Your task to perform on an android device: change notifications settings Image 0: 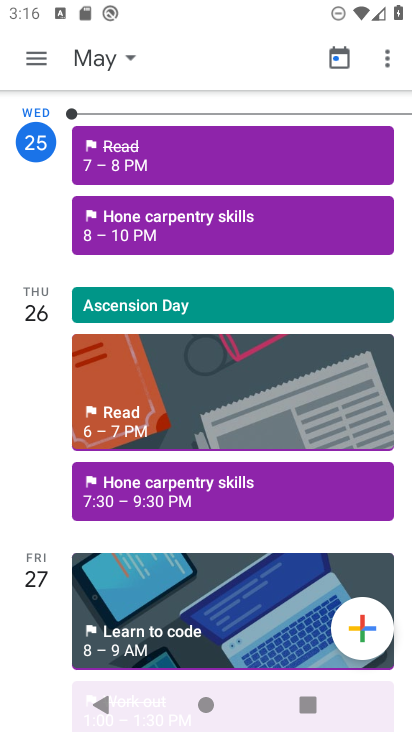
Step 0: press home button
Your task to perform on an android device: change notifications settings Image 1: 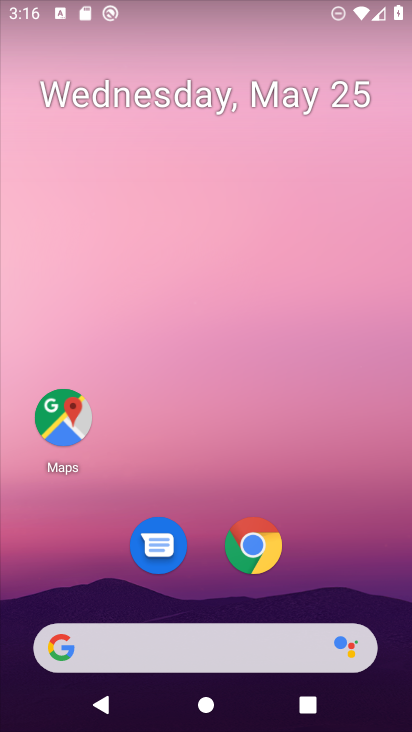
Step 1: drag from (352, 551) to (298, 116)
Your task to perform on an android device: change notifications settings Image 2: 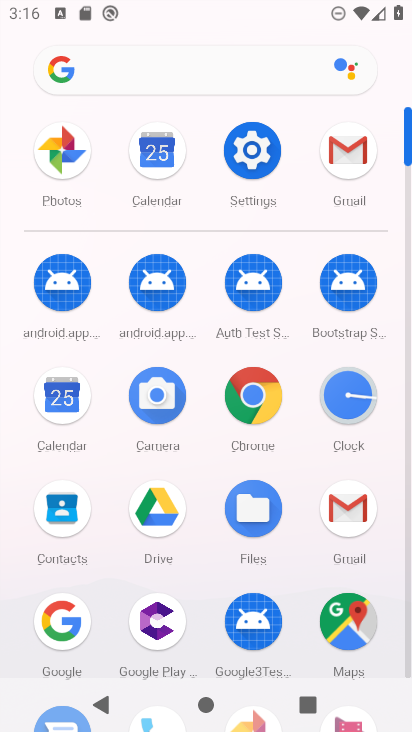
Step 2: click (242, 182)
Your task to perform on an android device: change notifications settings Image 3: 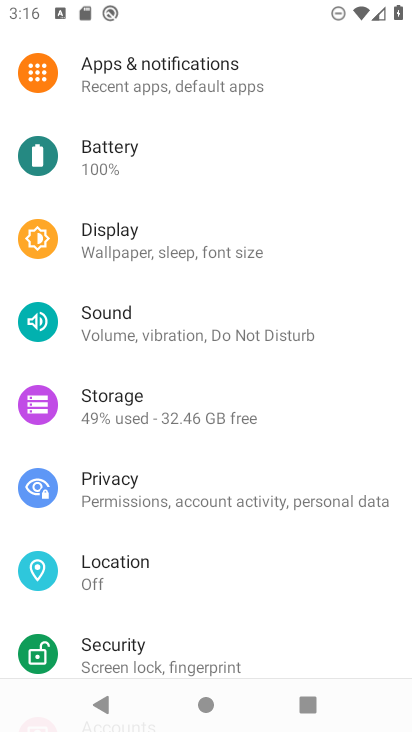
Step 3: click (207, 113)
Your task to perform on an android device: change notifications settings Image 4: 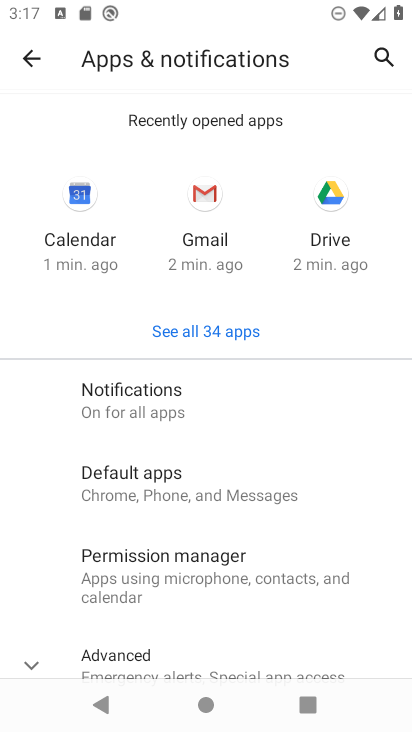
Step 4: task complete